Your task to perform on an android device: open chrome and create a bookmark for the current page Image 0: 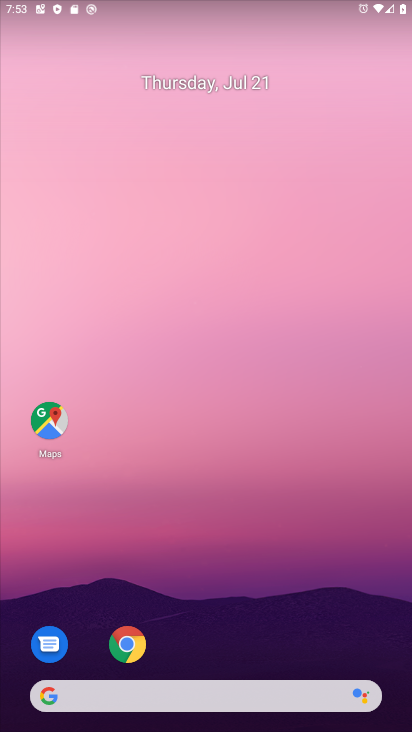
Step 0: drag from (211, 664) to (163, 329)
Your task to perform on an android device: open chrome and create a bookmark for the current page Image 1: 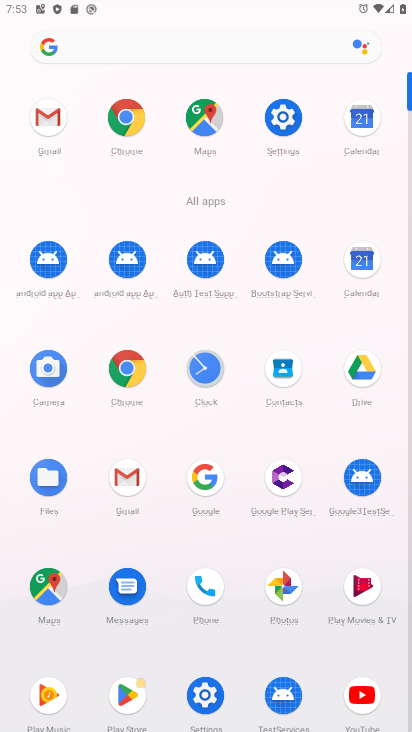
Step 1: click (128, 107)
Your task to perform on an android device: open chrome and create a bookmark for the current page Image 2: 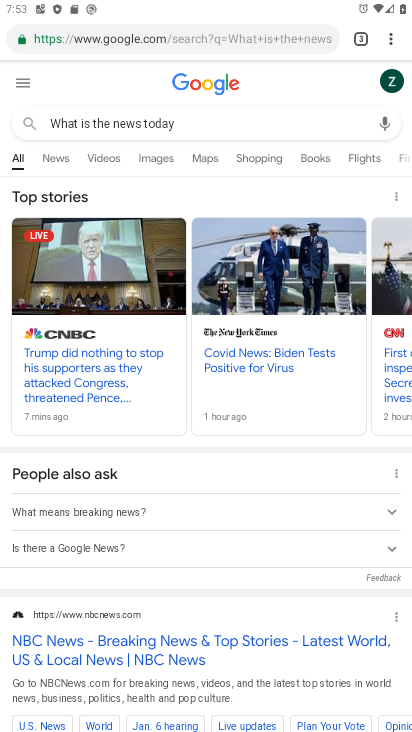
Step 2: click (387, 43)
Your task to perform on an android device: open chrome and create a bookmark for the current page Image 3: 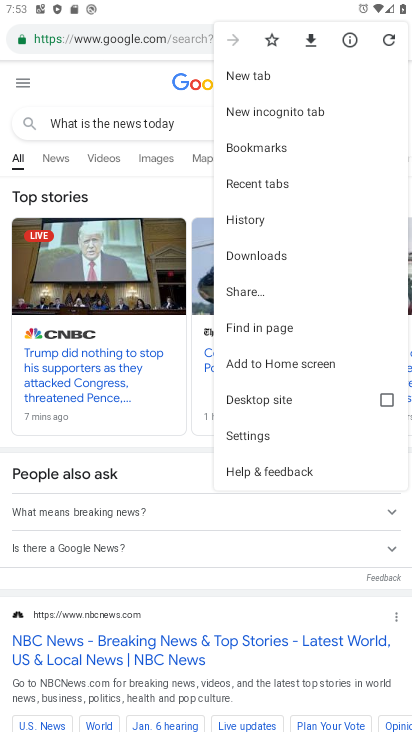
Step 3: click (161, 61)
Your task to perform on an android device: open chrome and create a bookmark for the current page Image 4: 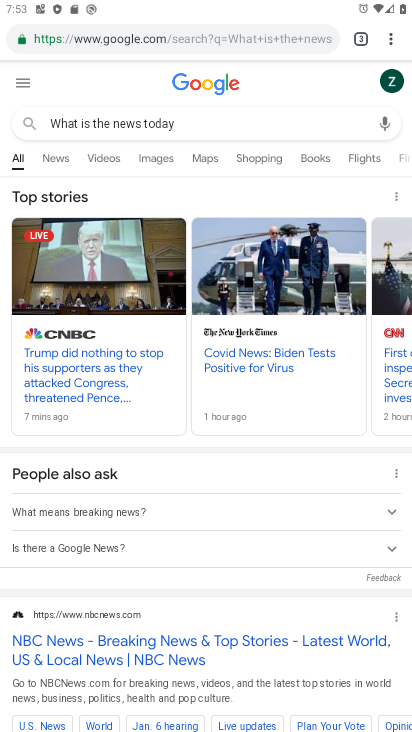
Step 4: click (387, 37)
Your task to perform on an android device: open chrome and create a bookmark for the current page Image 5: 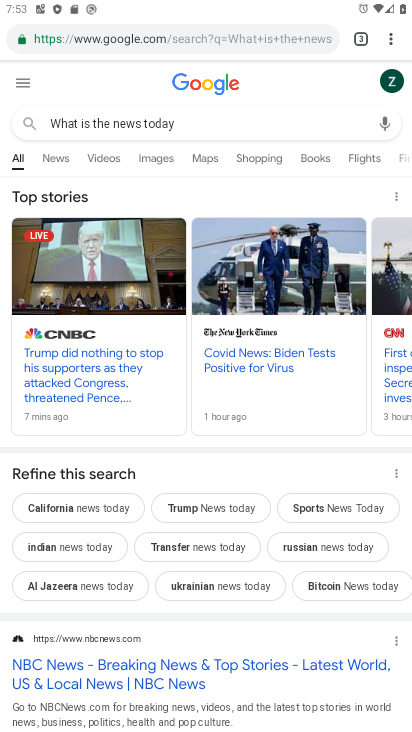
Step 5: click (362, 36)
Your task to perform on an android device: open chrome and create a bookmark for the current page Image 6: 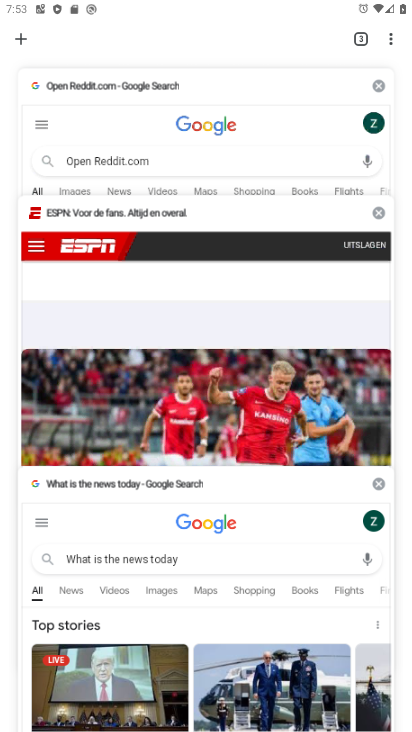
Step 6: click (262, 368)
Your task to perform on an android device: open chrome and create a bookmark for the current page Image 7: 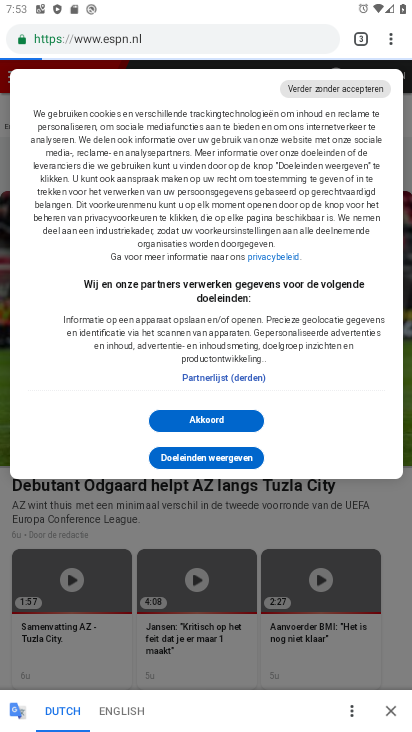
Step 7: click (379, 36)
Your task to perform on an android device: open chrome and create a bookmark for the current page Image 8: 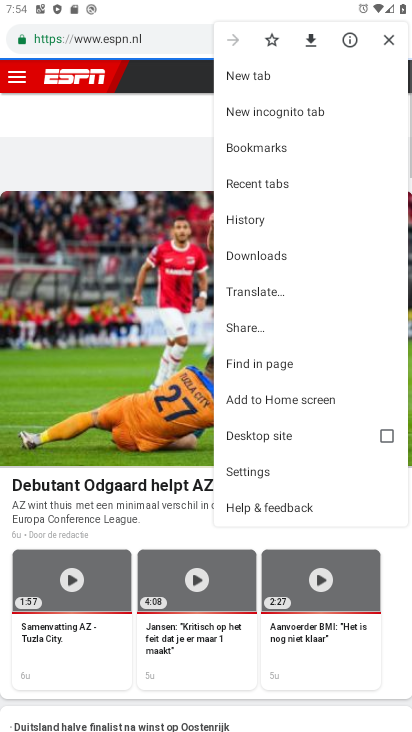
Step 8: click (280, 37)
Your task to perform on an android device: open chrome and create a bookmark for the current page Image 9: 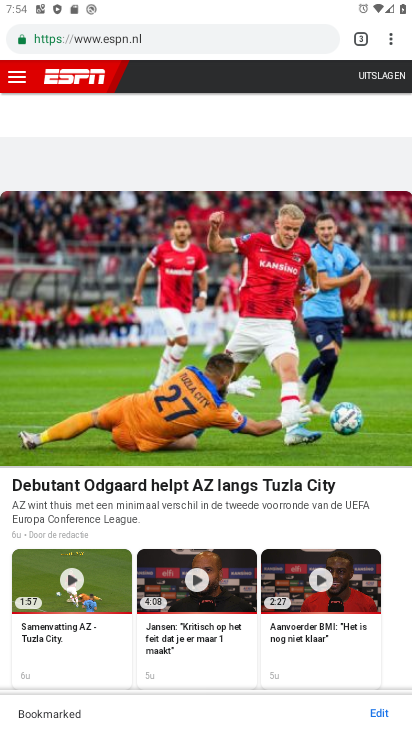
Step 9: task complete